Your task to perform on an android device: open app "Google Chrome" (install if not already installed) Image 0: 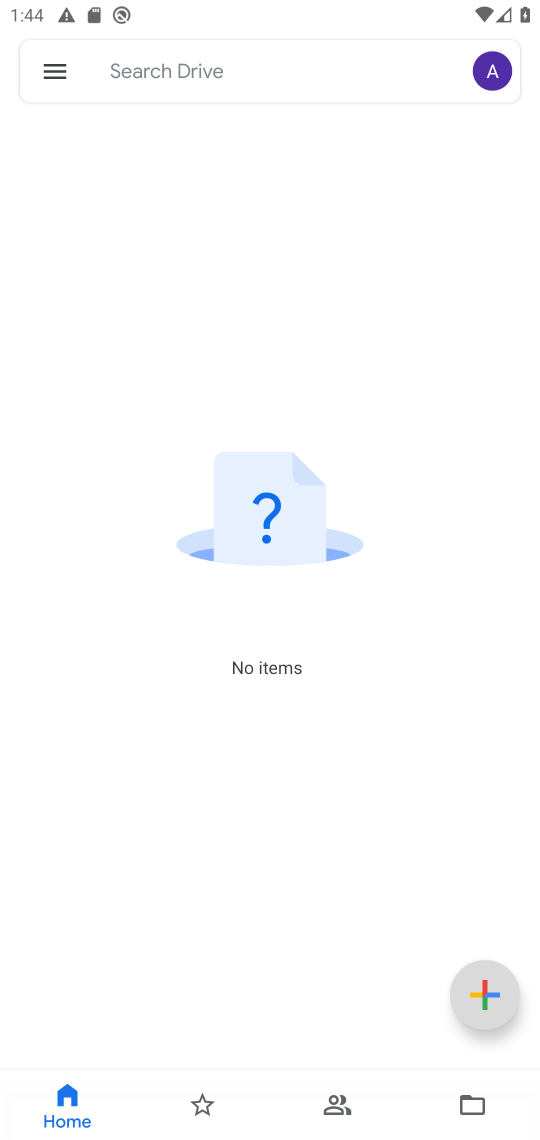
Step 0: press home button
Your task to perform on an android device: open app "Google Chrome" (install if not already installed) Image 1: 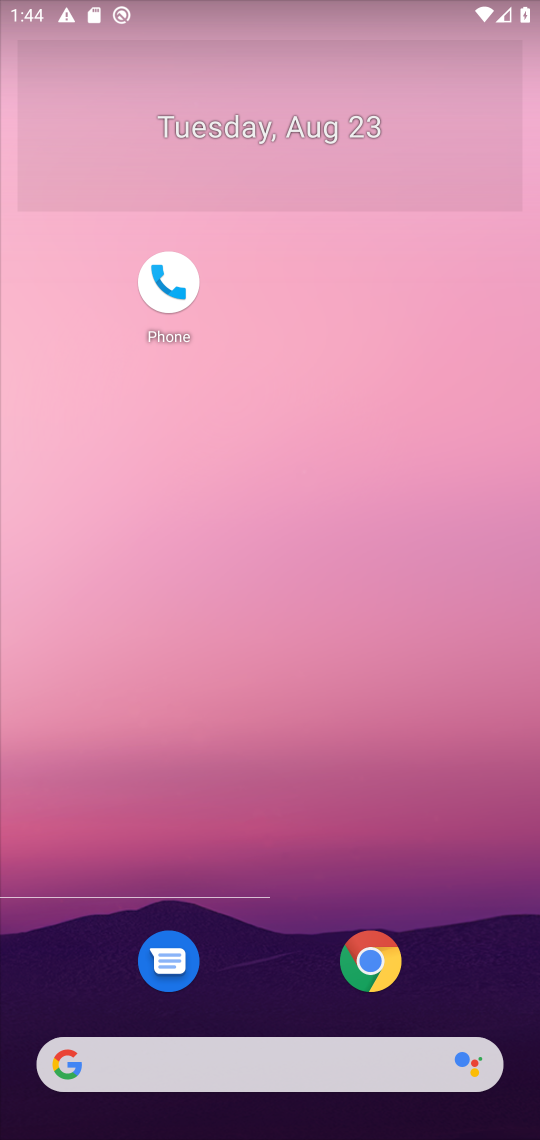
Step 1: click (363, 990)
Your task to perform on an android device: open app "Google Chrome" (install if not already installed) Image 2: 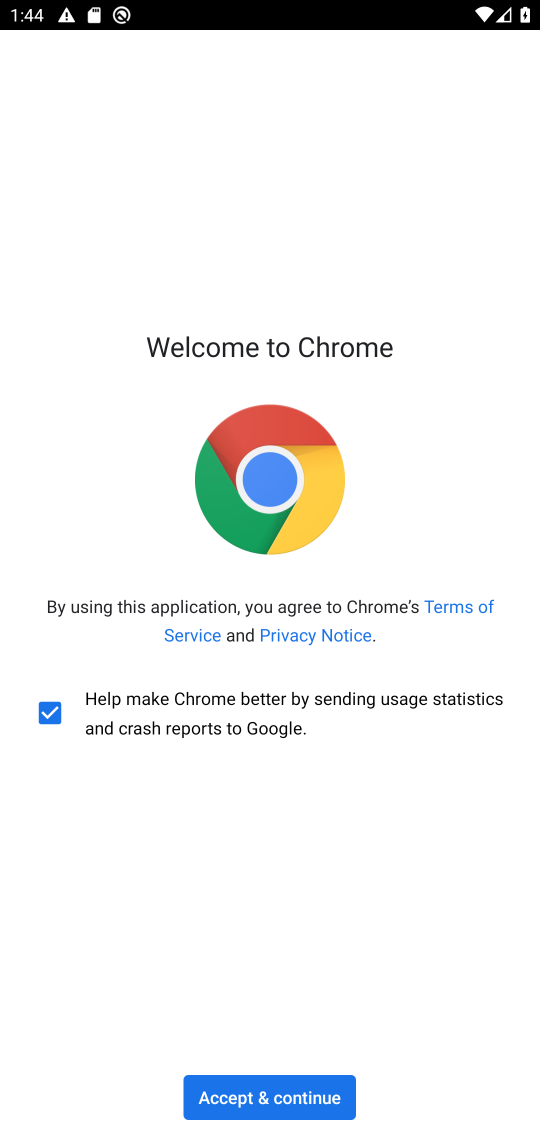
Step 2: click (242, 1083)
Your task to perform on an android device: open app "Google Chrome" (install if not already installed) Image 3: 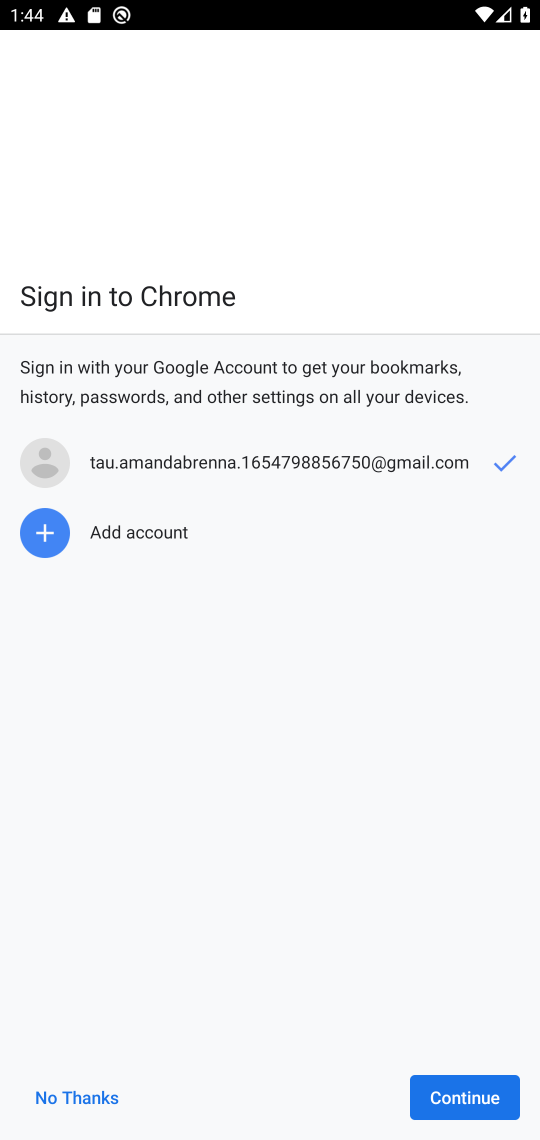
Step 3: click (456, 1097)
Your task to perform on an android device: open app "Google Chrome" (install if not already installed) Image 4: 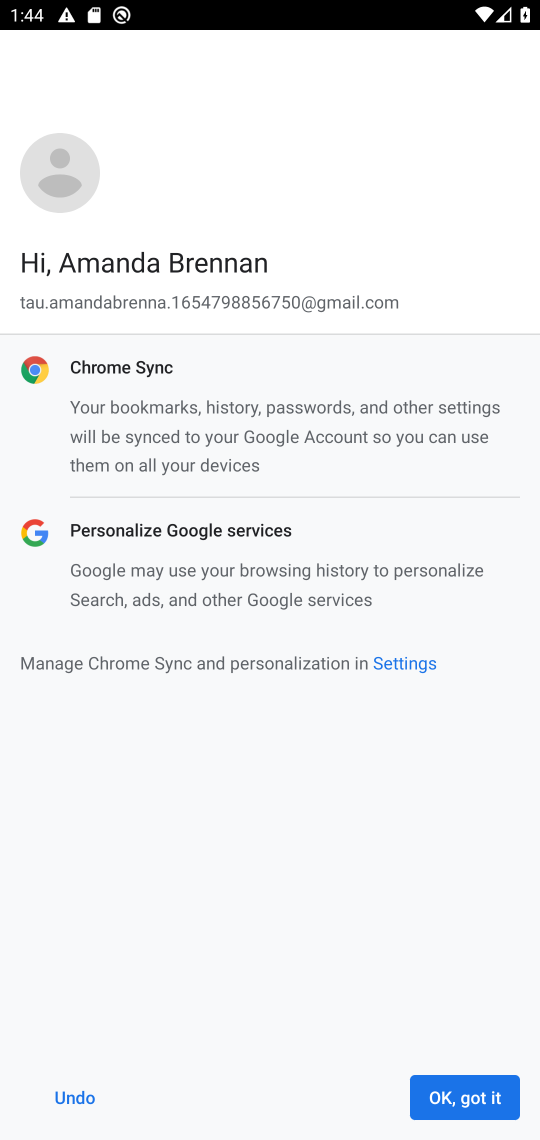
Step 4: click (461, 1111)
Your task to perform on an android device: open app "Google Chrome" (install if not already installed) Image 5: 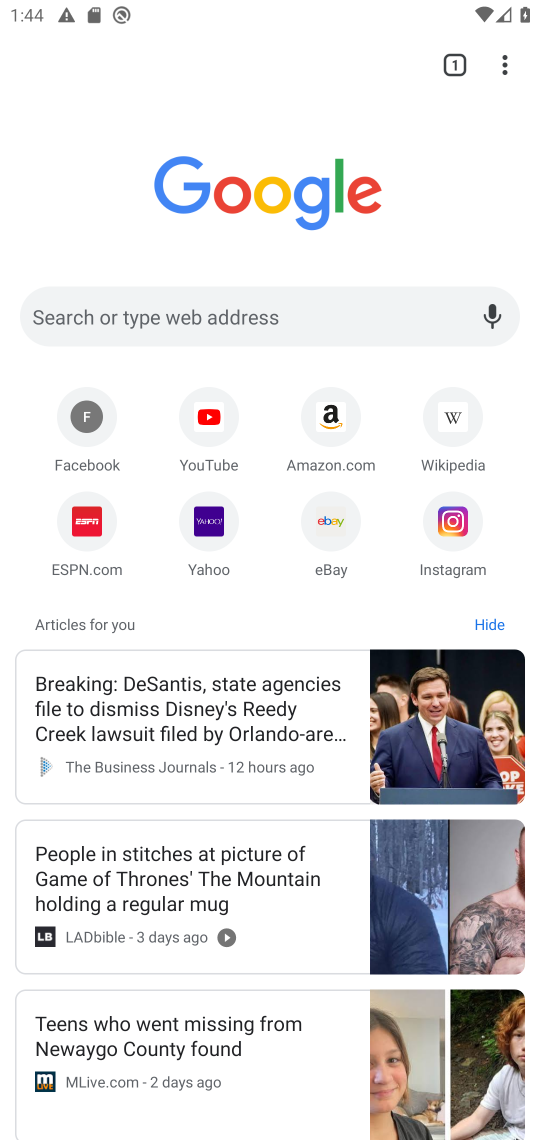
Step 5: task complete